Your task to perform on an android device: What's the weather going to be tomorrow? Image 0: 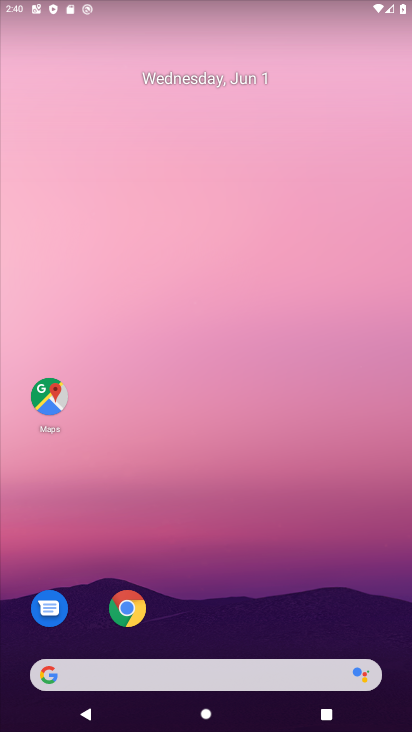
Step 0: drag from (5, 231) to (313, 34)
Your task to perform on an android device: What's the weather going to be tomorrow? Image 1: 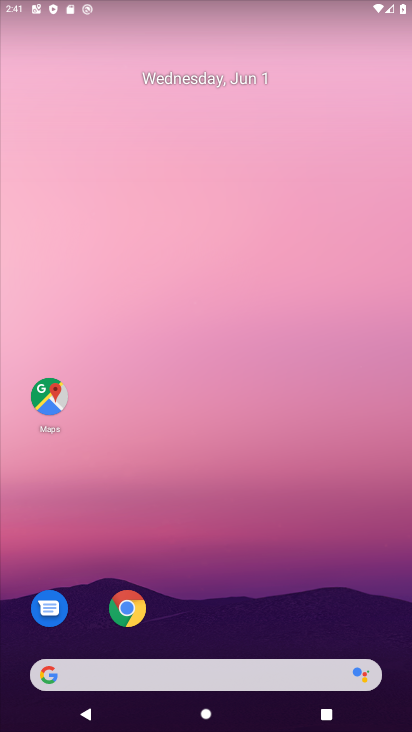
Step 1: drag from (13, 301) to (356, 317)
Your task to perform on an android device: What's the weather going to be tomorrow? Image 2: 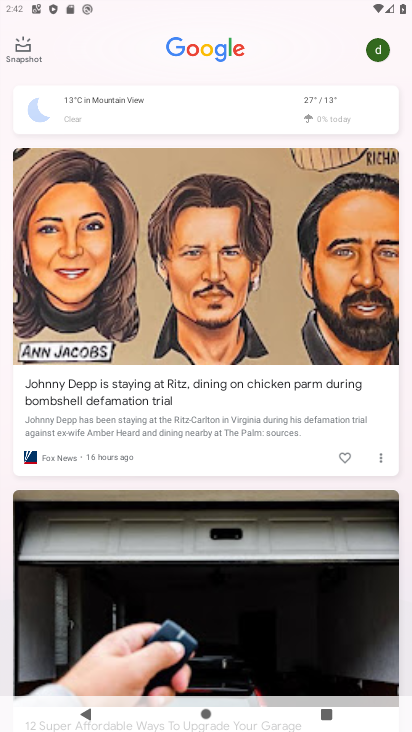
Step 2: click (295, 116)
Your task to perform on an android device: What's the weather going to be tomorrow? Image 3: 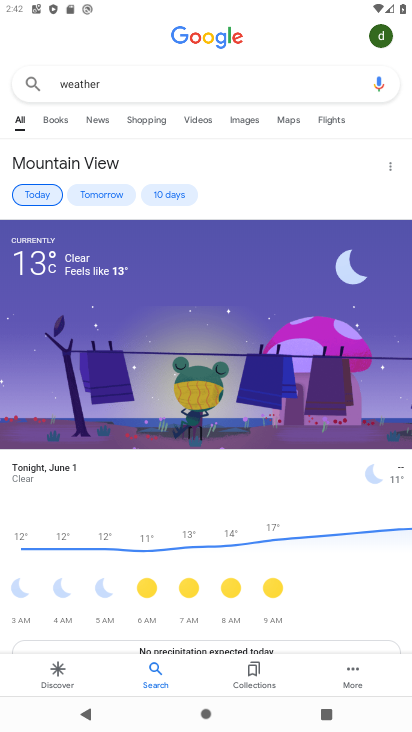
Step 3: task complete